Your task to perform on an android device: toggle translation in the chrome app Image 0: 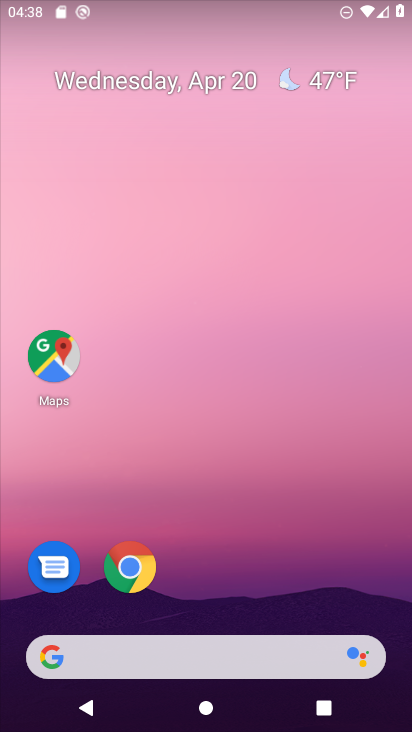
Step 0: click (115, 564)
Your task to perform on an android device: toggle translation in the chrome app Image 1: 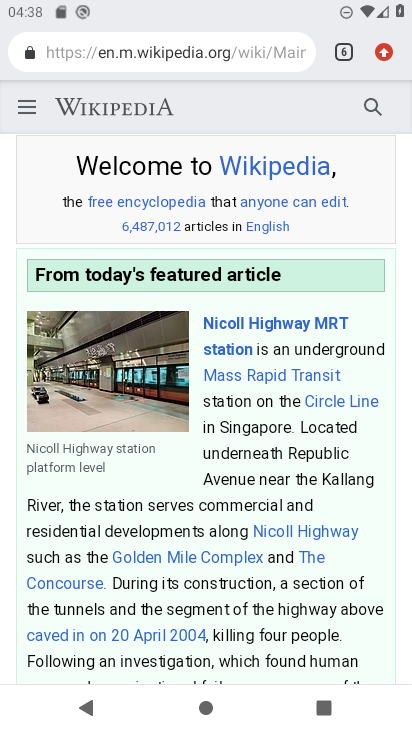
Step 1: click (379, 55)
Your task to perform on an android device: toggle translation in the chrome app Image 2: 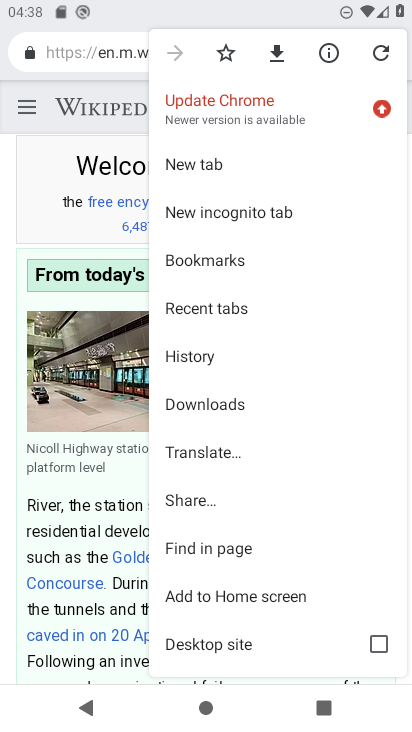
Step 2: drag from (243, 629) to (289, 69)
Your task to perform on an android device: toggle translation in the chrome app Image 3: 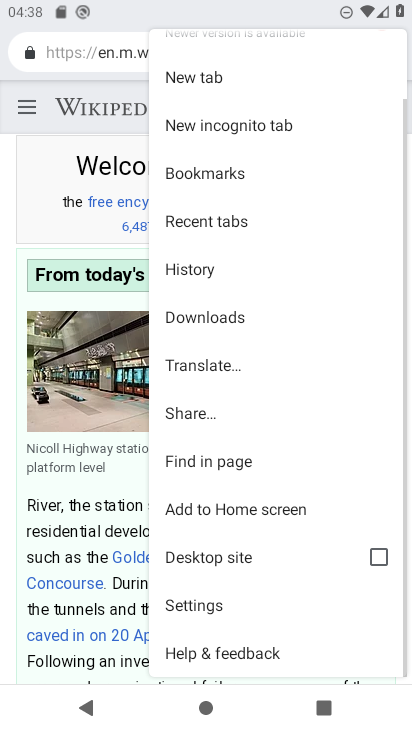
Step 3: click (189, 598)
Your task to perform on an android device: toggle translation in the chrome app Image 4: 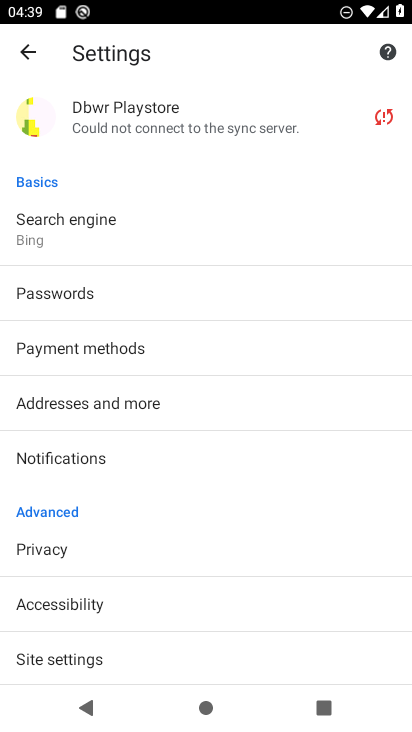
Step 4: drag from (128, 657) to (125, 208)
Your task to perform on an android device: toggle translation in the chrome app Image 5: 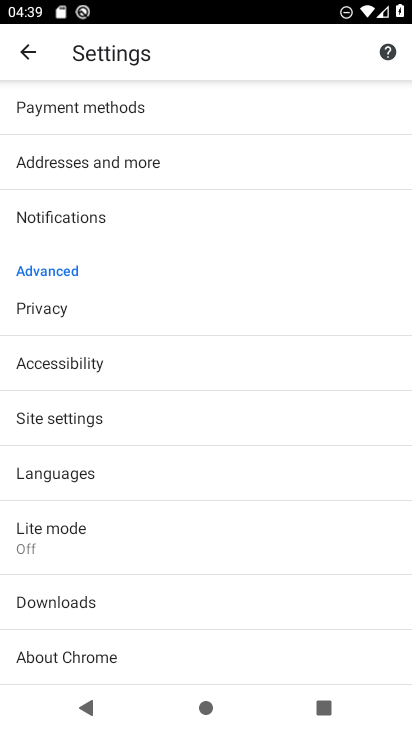
Step 5: click (54, 460)
Your task to perform on an android device: toggle translation in the chrome app Image 6: 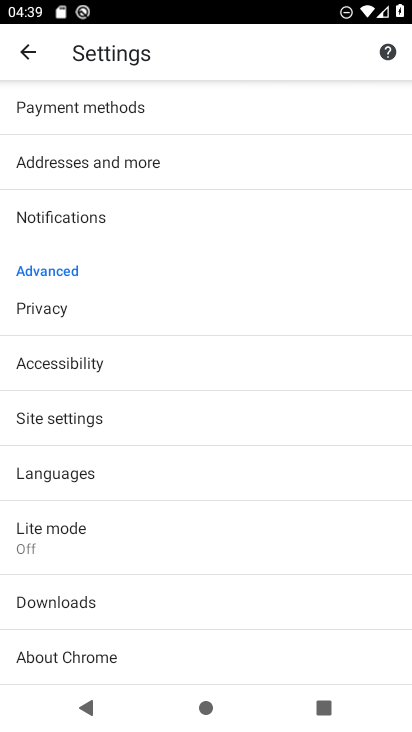
Step 6: click (54, 460)
Your task to perform on an android device: toggle translation in the chrome app Image 7: 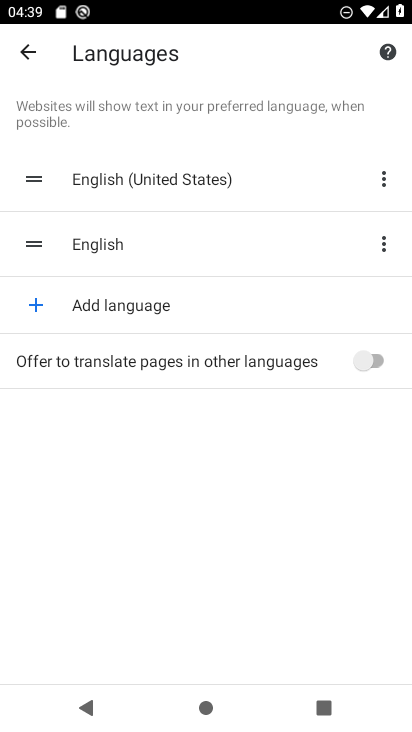
Step 7: click (380, 356)
Your task to perform on an android device: toggle translation in the chrome app Image 8: 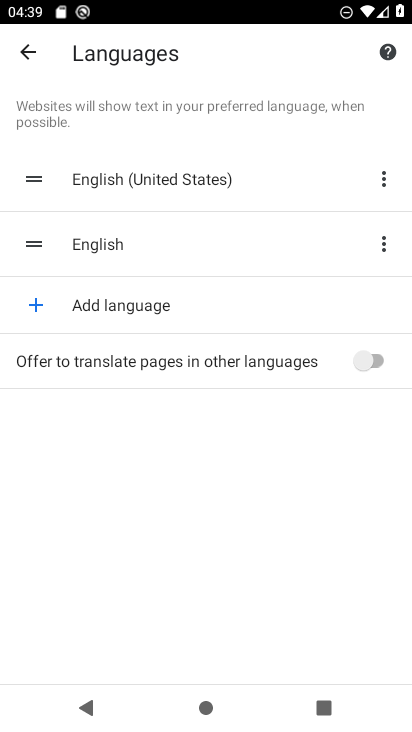
Step 8: click (380, 356)
Your task to perform on an android device: toggle translation in the chrome app Image 9: 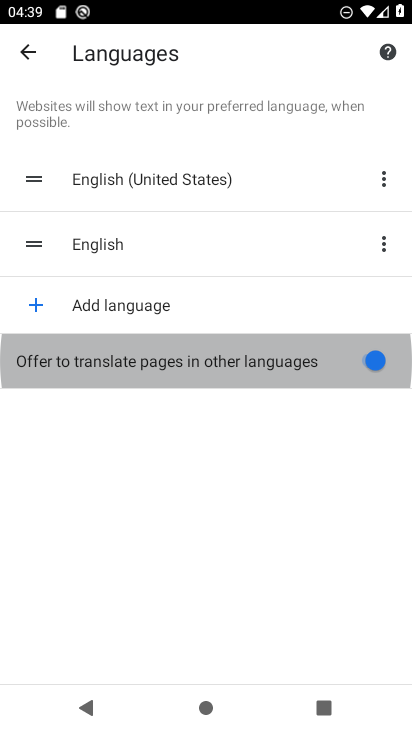
Step 9: click (380, 356)
Your task to perform on an android device: toggle translation in the chrome app Image 10: 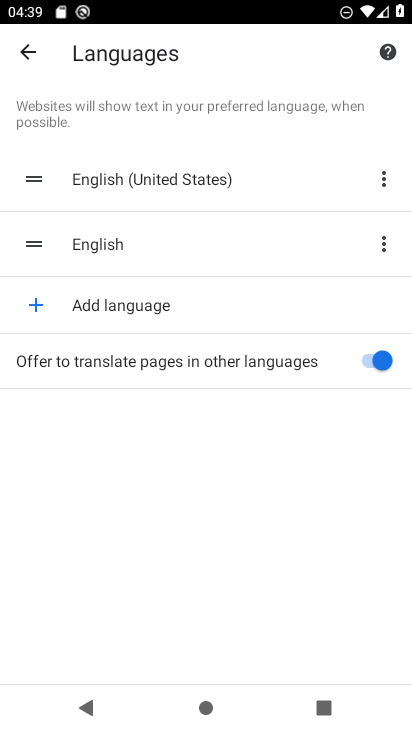
Step 10: task complete